Your task to perform on an android device: Show me popular games on the Play Store Image 0: 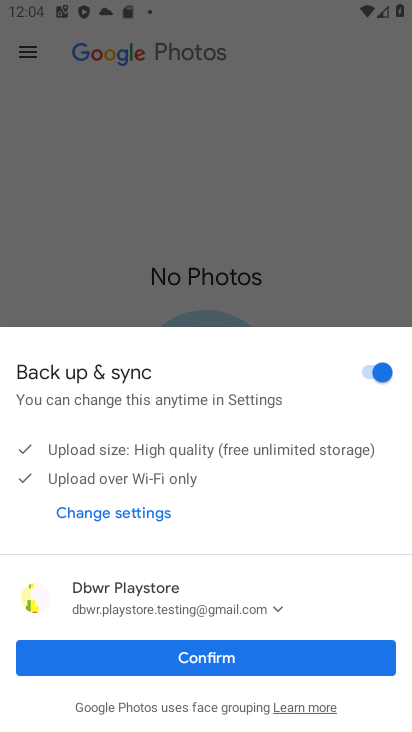
Step 0: click (346, 644)
Your task to perform on an android device: Show me popular games on the Play Store Image 1: 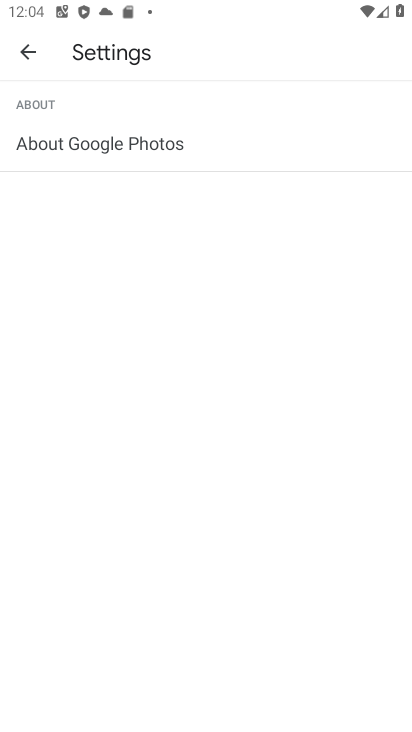
Step 1: task complete